Your task to perform on an android device: open a bookmark in the chrome app Image 0: 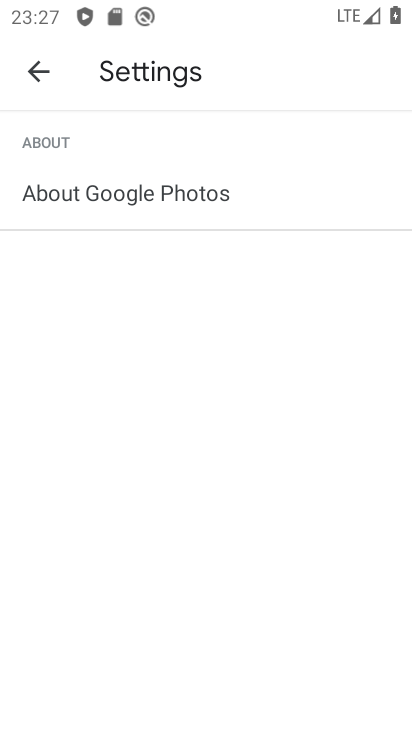
Step 0: press home button
Your task to perform on an android device: open a bookmark in the chrome app Image 1: 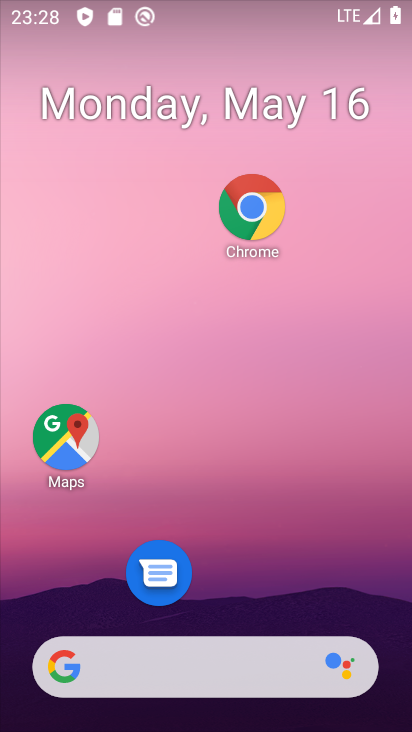
Step 1: drag from (321, 689) to (295, 4)
Your task to perform on an android device: open a bookmark in the chrome app Image 2: 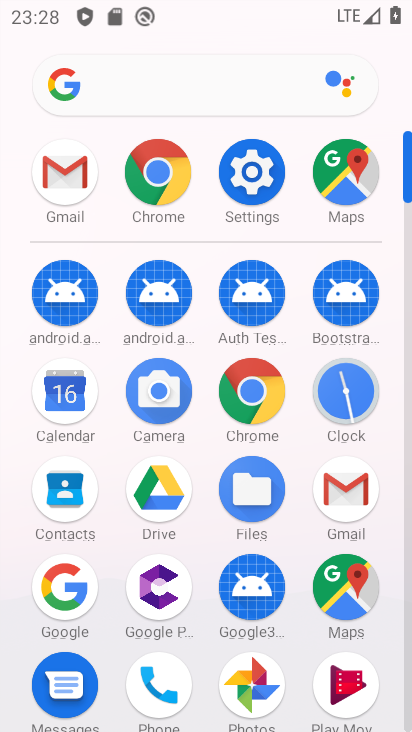
Step 2: drag from (310, 673) to (322, 204)
Your task to perform on an android device: open a bookmark in the chrome app Image 3: 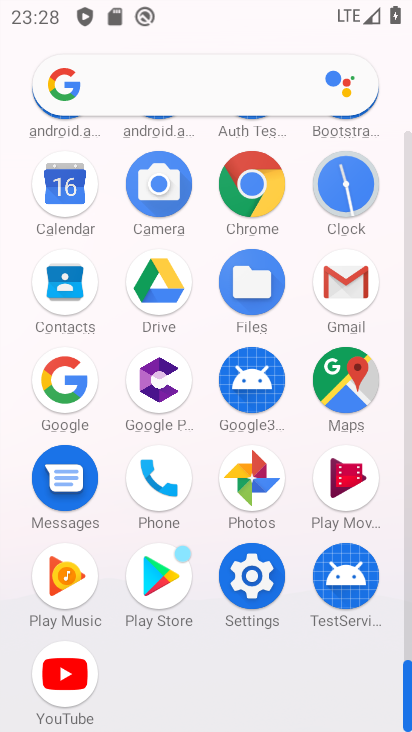
Step 3: click (251, 171)
Your task to perform on an android device: open a bookmark in the chrome app Image 4: 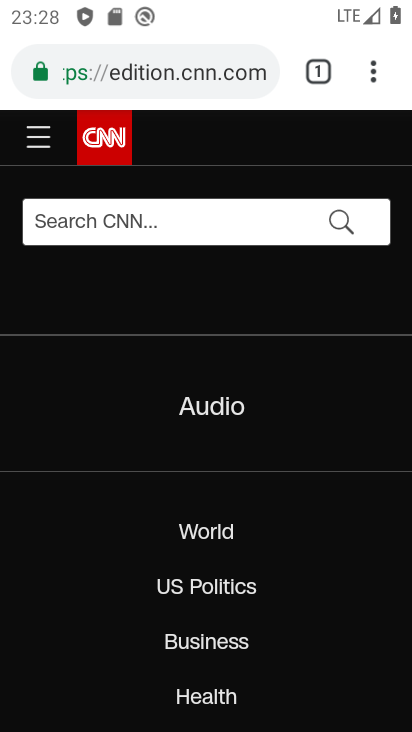
Step 4: click (373, 77)
Your task to perform on an android device: open a bookmark in the chrome app Image 5: 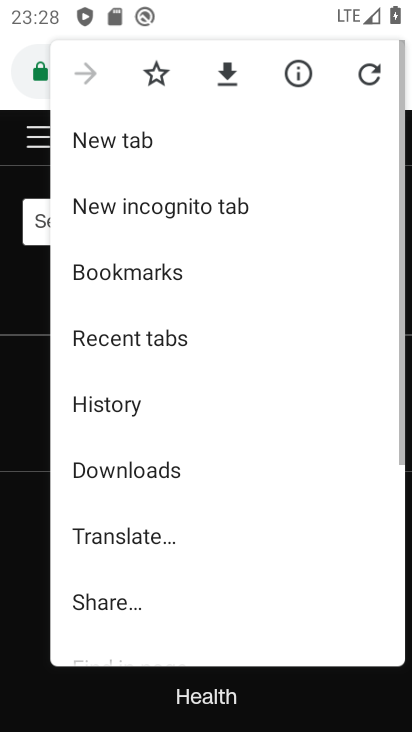
Step 5: click (193, 272)
Your task to perform on an android device: open a bookmark in the chrome app Image 6: 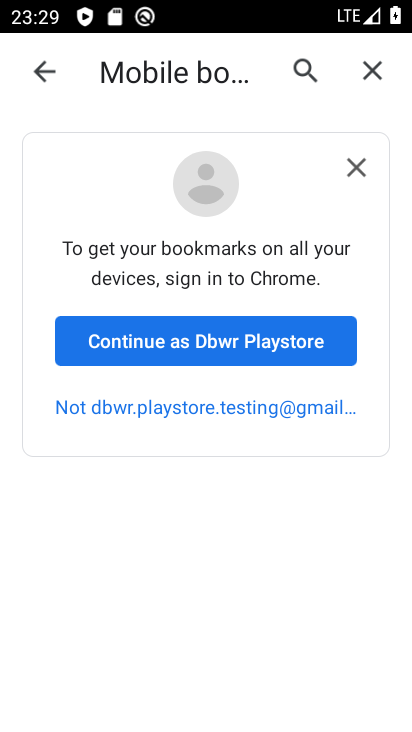
Step 6: task complete